Your task to perform on an android device: Open Google Chrome and open the bookmarks view Image 0: 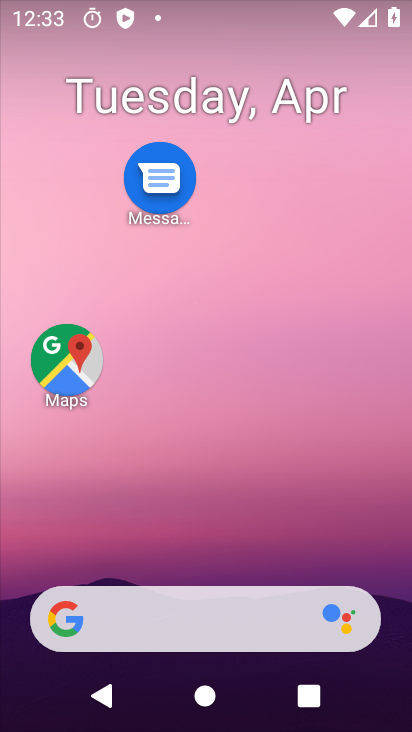
Step 0: drag from (213, 708) to (218, 98)
Your task to perform on an android device: Open Google Chrome and open the bookmarks view Image 1: 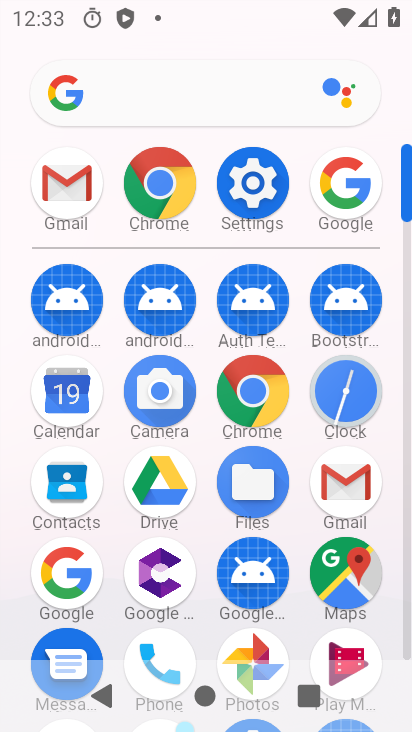
Step 1: click (155, 184)
Your task to perform on an android device: Open Google Chrome and open the bookmarks view Image 2: 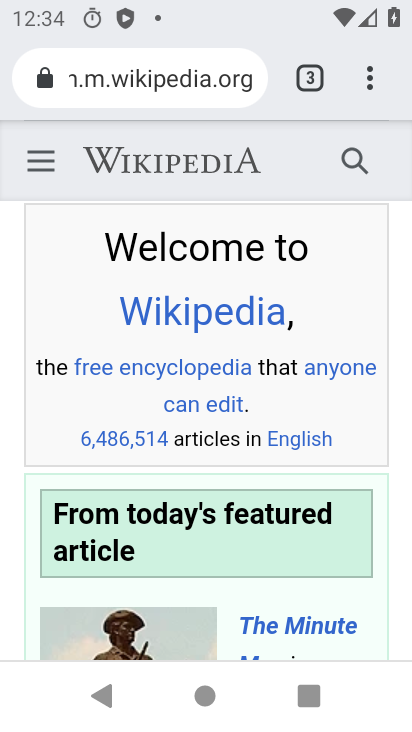
Step 2: click (368, 85)
Your task to perform on an android device: Open Google Chrome and open the bookmarks view Image 3: 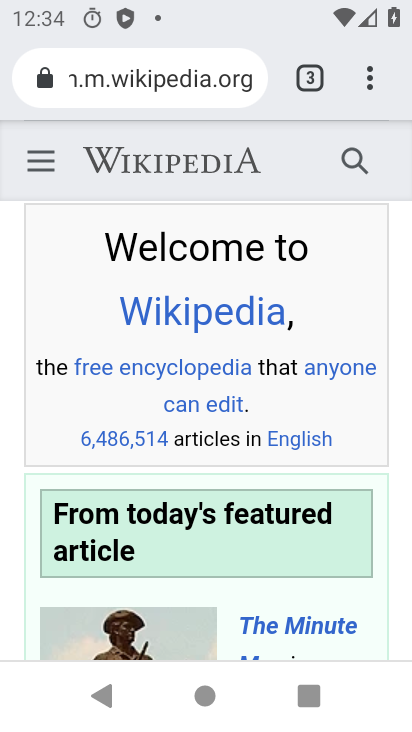
Step 3: click (367, 72)
Your task to perform on an android device: Open Google Chrome and open the bookmarks view Image 4: 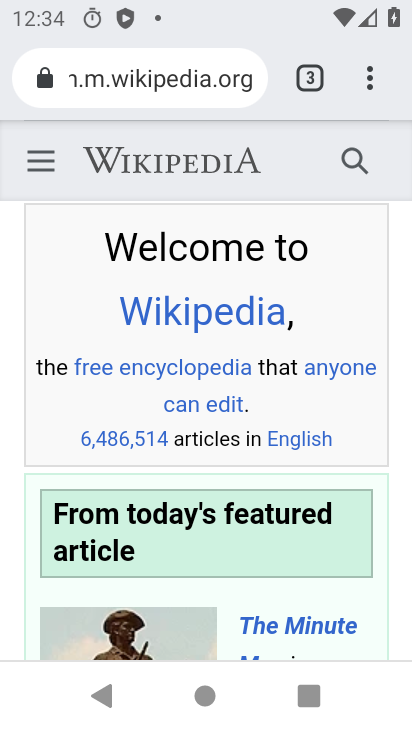
Step 4: click (368, 74)
Your task to perform on an android device: Open Google Chrome and open the bookmarks view Image 5: 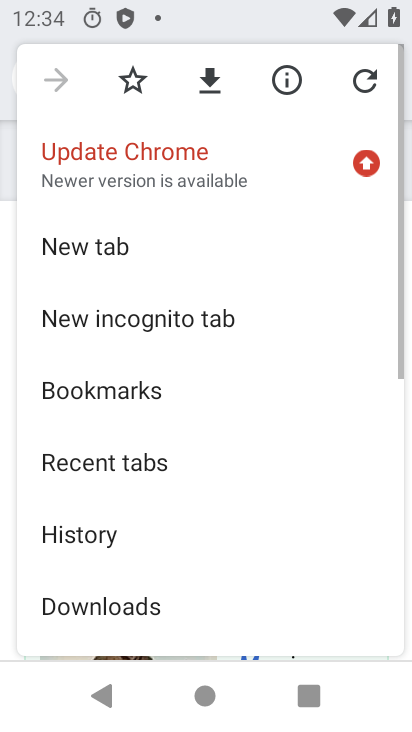
Step 5: click (95, 388)
Your task to perform on an android device: Open Google Chrome and open the bookmarks view Image 6: 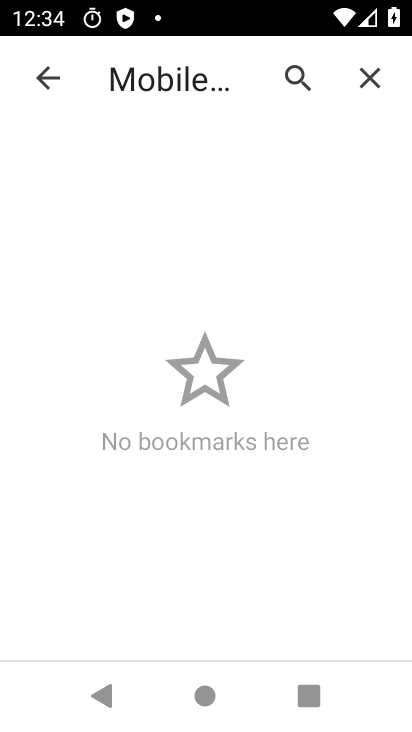
Step 6: task complete